Your task to perform on an android device: Go to Amazon Image 0: 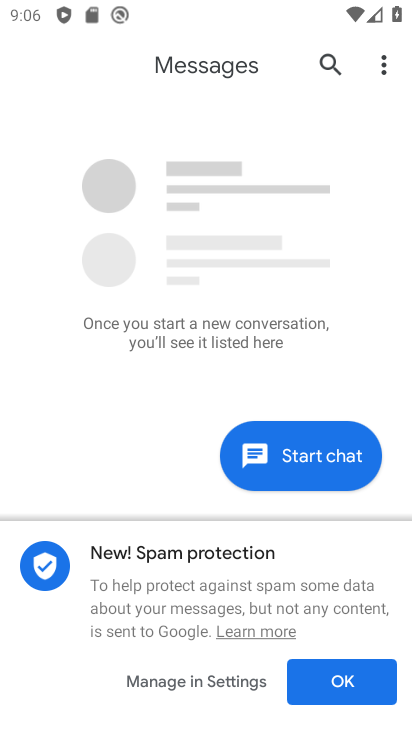
Step 0: press home button
Your task to perform on an android device: Go to Amazon Image 1: 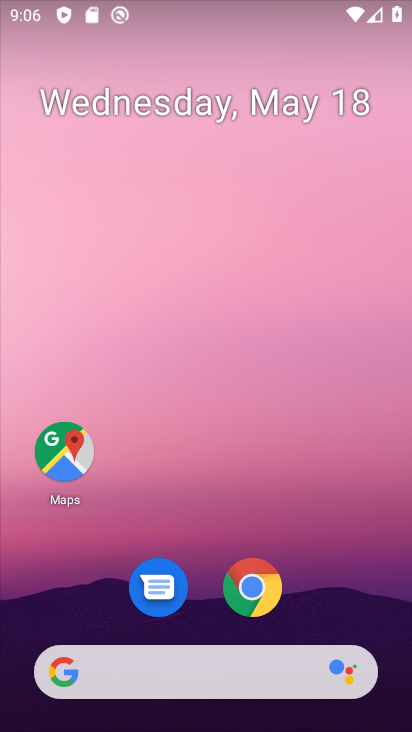
Step 1: drag from (382, 586) to (341, 167)
Your task to perform on an android device: Go to Amazon Image 2: 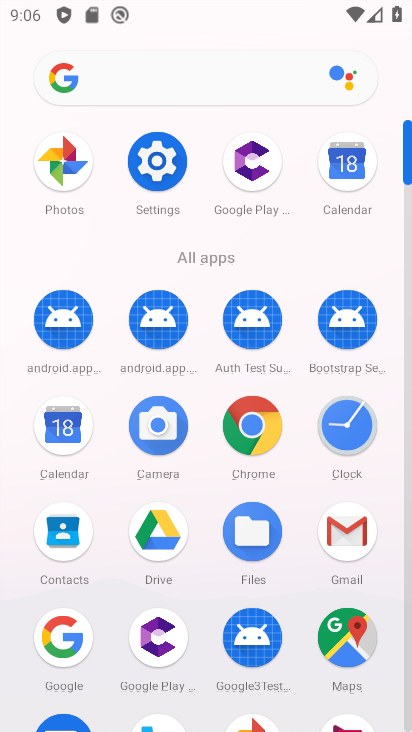
Step 2: drag from (302, 589) to (314, 334)
Your task to perform on an android device: Go to Amazon Image 3: 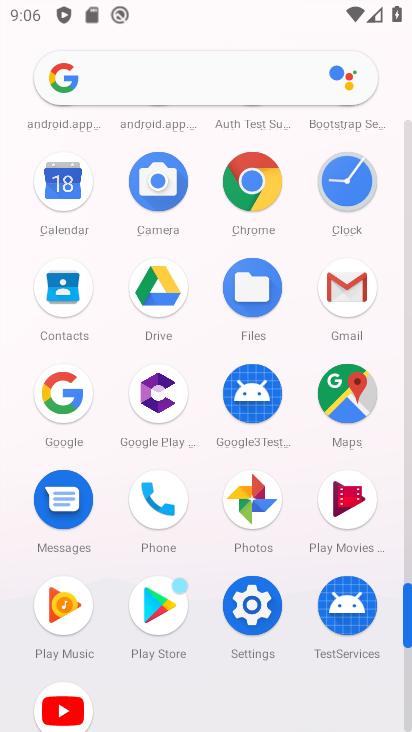
Step 3: click (257, 178)
Your task to perform on an android device: Go to Amazon Image 4: 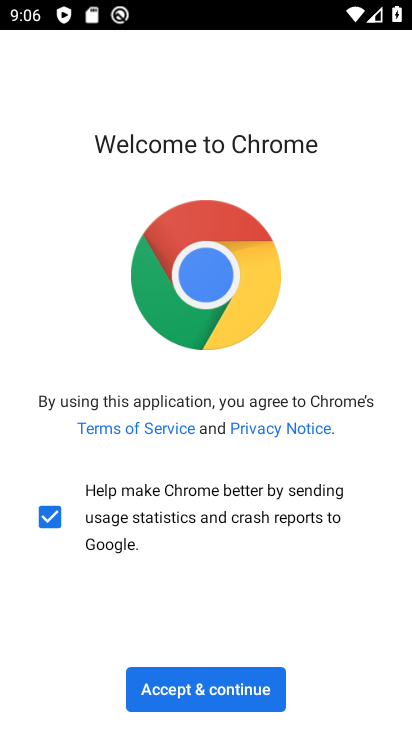
Step 4: click (248, 685)
Your task to perform on an android device: Go to Amazon Image 5: 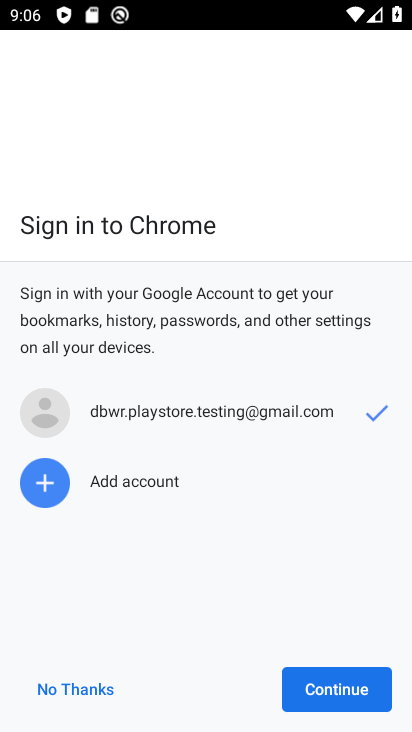
Step 5: click (308, 695)
Your task to perform on an android device: Go to Amazon Image 6: 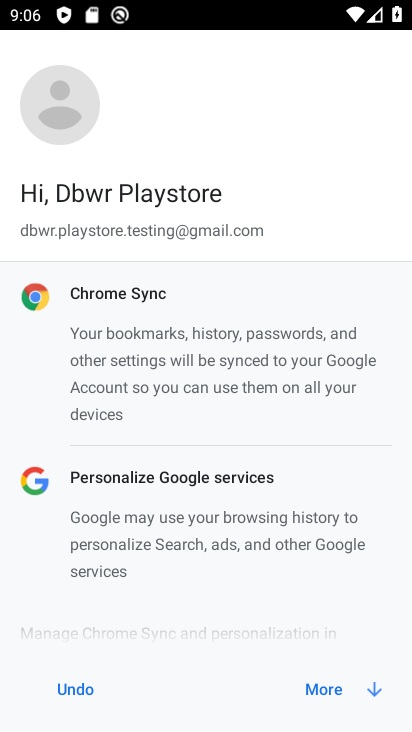
Step 6: click (309, 694)
Your task to perform on an android device: Go to Amazon Image 7: 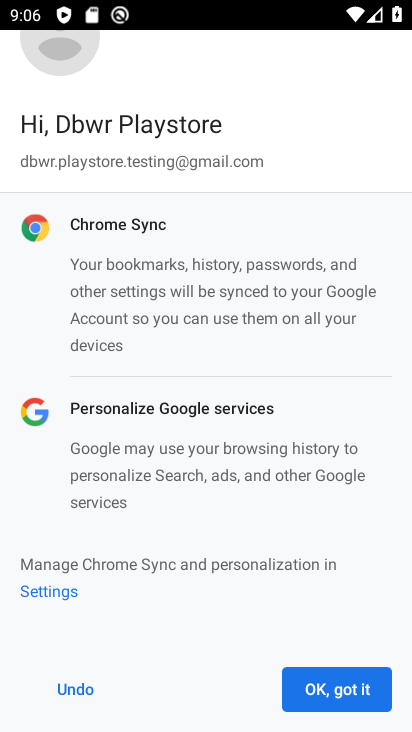
Step 7: click (311, 688)
Your task to perform on an android device: Go to Amazon Image 8: 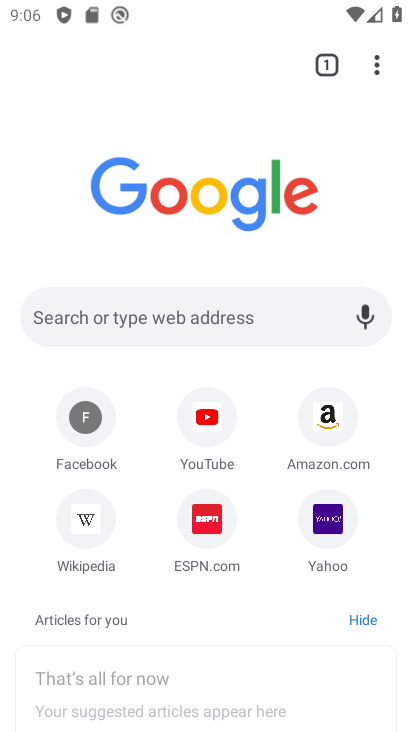
Step 8: click (241, 322)
Your task to perform on an android device: Go to Amazon Image 9: 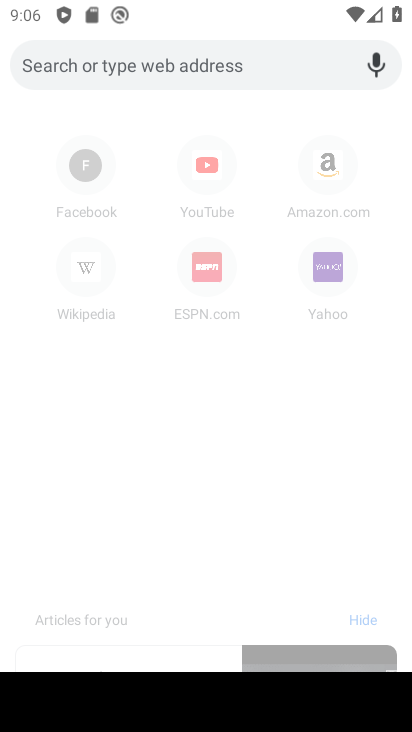
Step 9: click (318, 173)
Your task to perform on an android device: Go to Amazon Image 10: 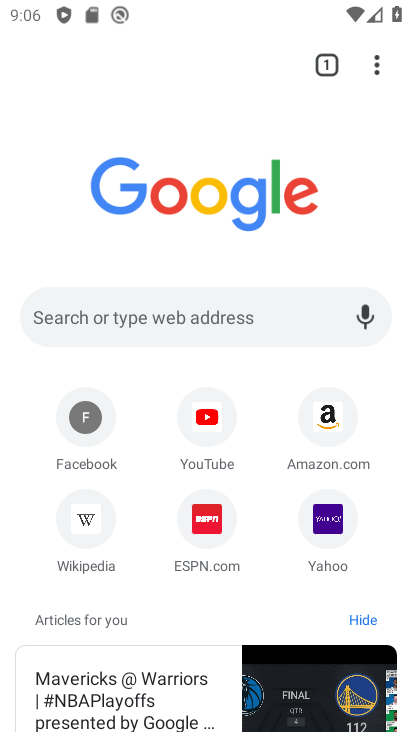
Step 10: click (350, 430)
Your task to perform on an android device: Go to Amazon Image 11: 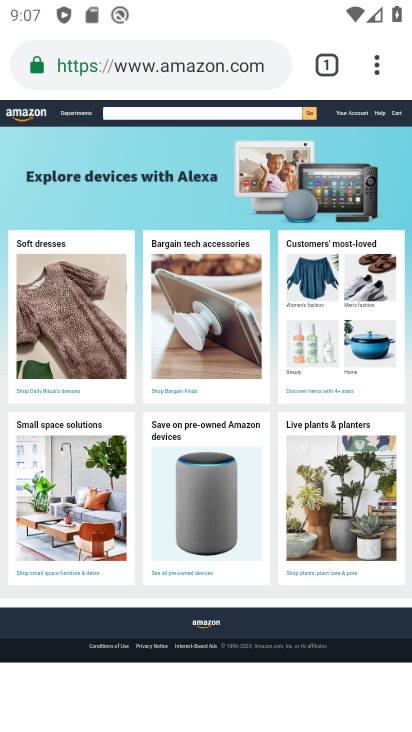
Step 11: task complete